Your task to perform on an android device: Is it going to rain this weekend? Image 0: 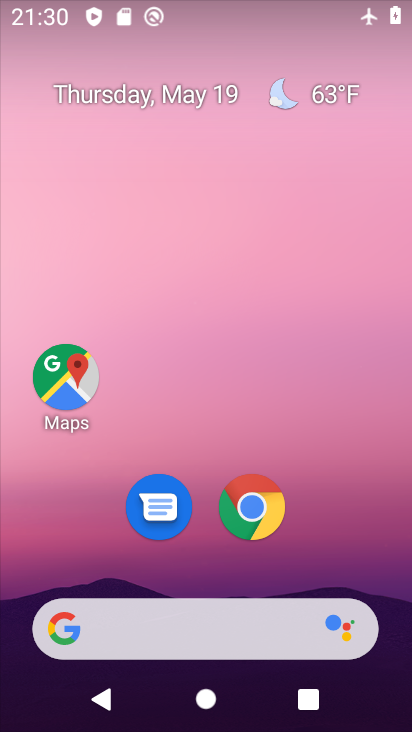
Step 0: drag from (401, 628) to (376, 127)
Your task to perform on an android device: Is it going to rain this weekend? Image 1: 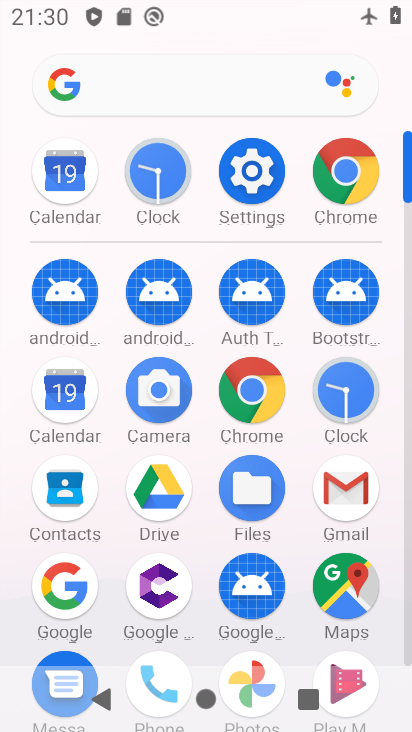
Step 1: click (232, 81)
Your task to perform on an android device: Is it going to rain this weekend? Image 2: 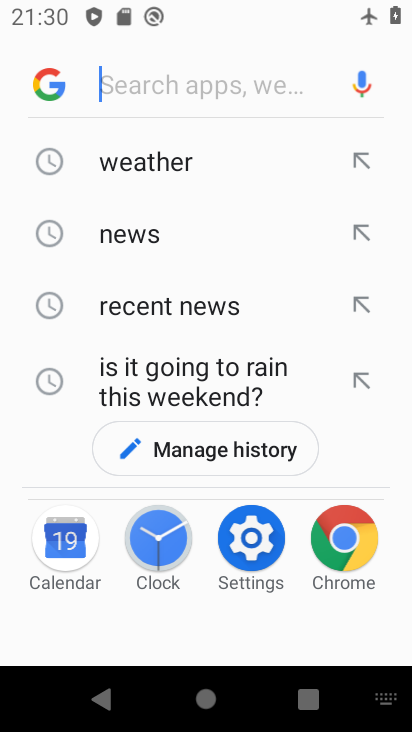
Step 2: click (237, 402)
Your task to perform on an android device: Is it going to rain this weekend? Image 3: 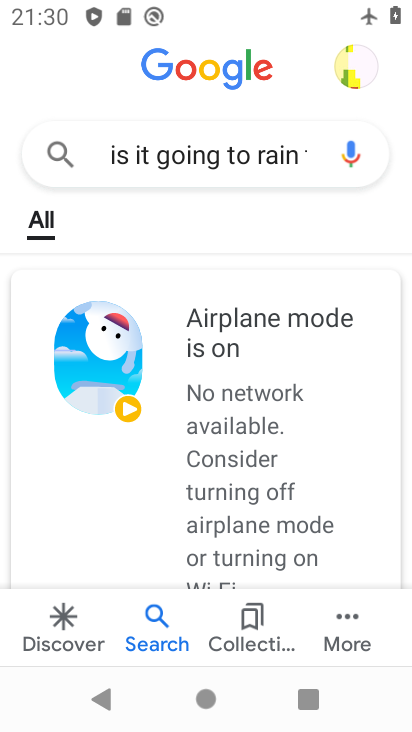
Step 3: task complete